Your task to perform on an android device: turn pop-ups on in chrome Image 0: 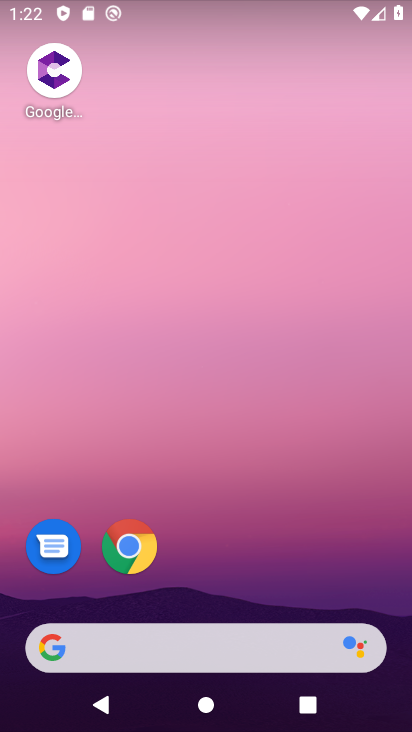
Step 0: drag from (378, 519) to (336, 155)
Your task to perform on an android device: turn pop-ups on in chrome Image 1: 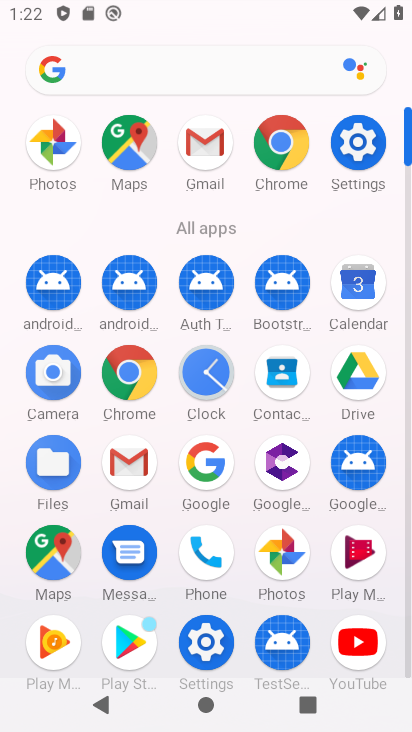
Step 1: click (292, 161)
Your task to perform on an android device: turn pop-ups on in chrome Image 2: 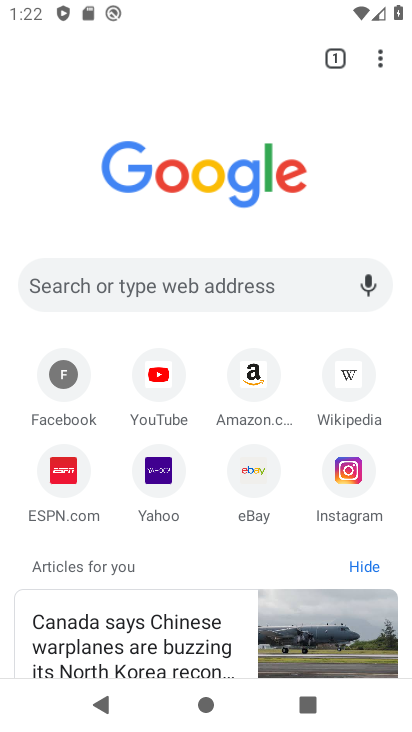
Step 2: drag from (378, 75) to (297, 496)
Your task to perform on an android device: turn pop-ups on in chrome Image 3: 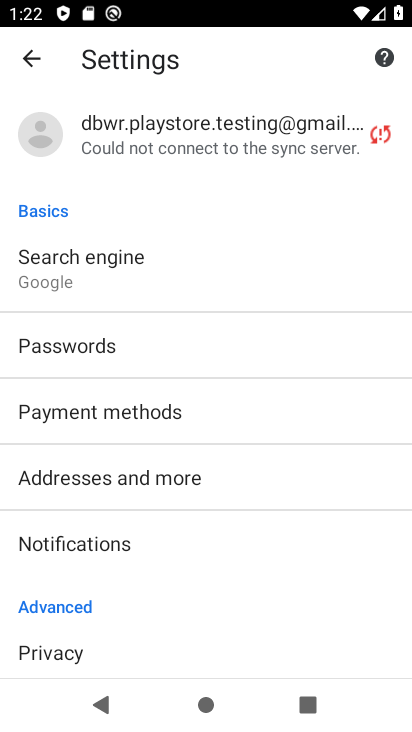
Step 3: drag from (255, 556) to (271, 283)
Your task to perform on an android device: turn pop-ups on in chrome Image 4: 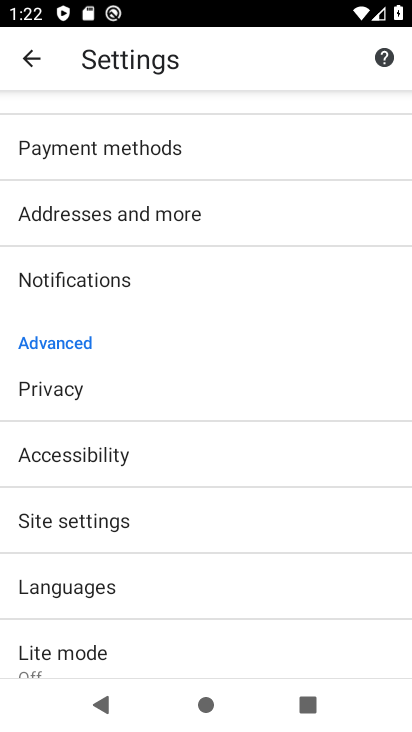
Step 4: drag from (255, 546) to (275, 383)
Your task to perform on an android device: turn pop-ups on in chrome Image 5: 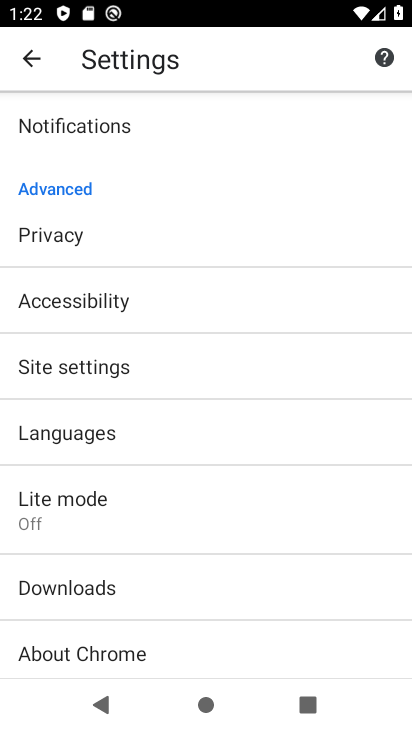
Step 5: click (227, 371)
Your task to perform on an android device: turn pop-ups on in chrome Image 6: 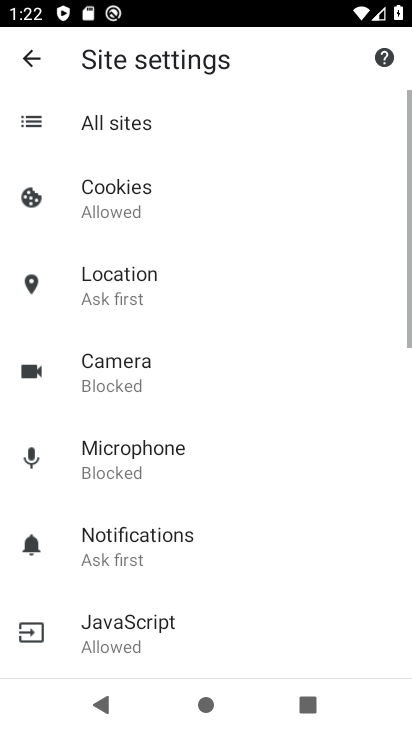
Step 6: drag from (289, 599) to (304, 384)
Your task to perform on an android device: turn pop-ups on in chrome Image 7: 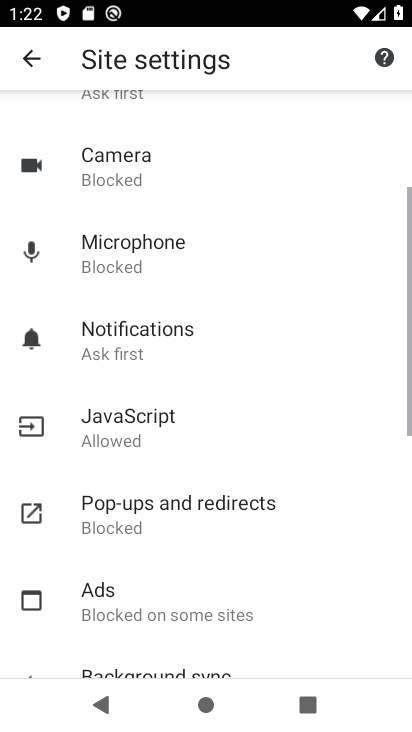
Step 7: click (291, 500)
Your task to perform on an android device: turn pop-ups on in chrome Image 8: 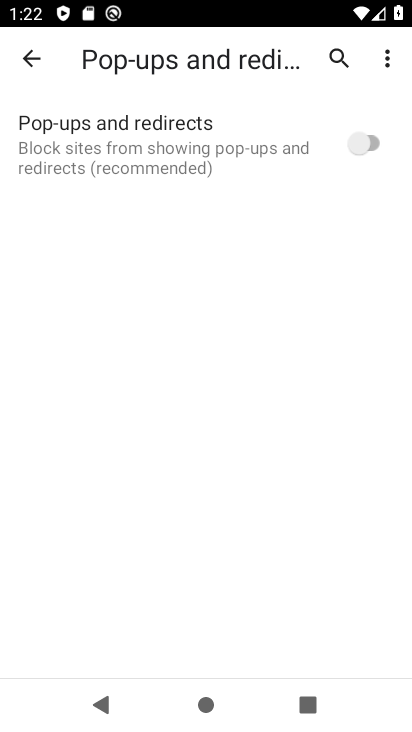
Step 8: click (381, 145)
Your task to perform on an android device: turn pop-ups on in chrome Image 9: 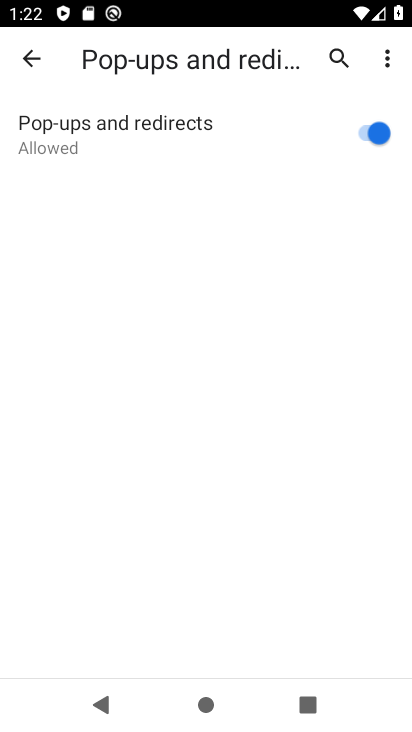
Step 9: task complete